Your task to perform on an android device: Open Google Chrome Image 0: 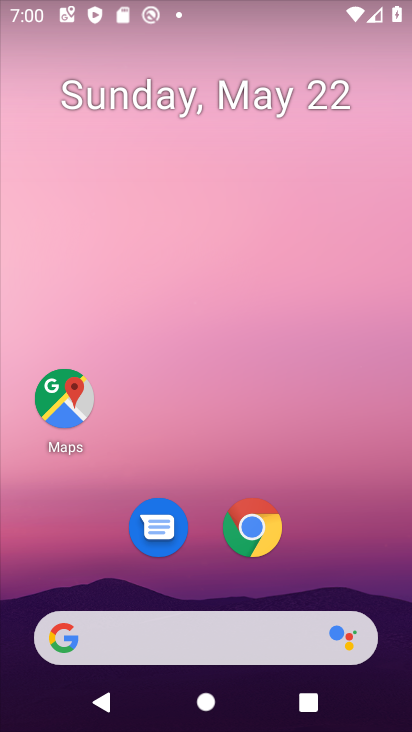
Step 0: drag from (376, 563) to (377, 168)
Your task to perform on an android device: Open Google Chrome Image 1: 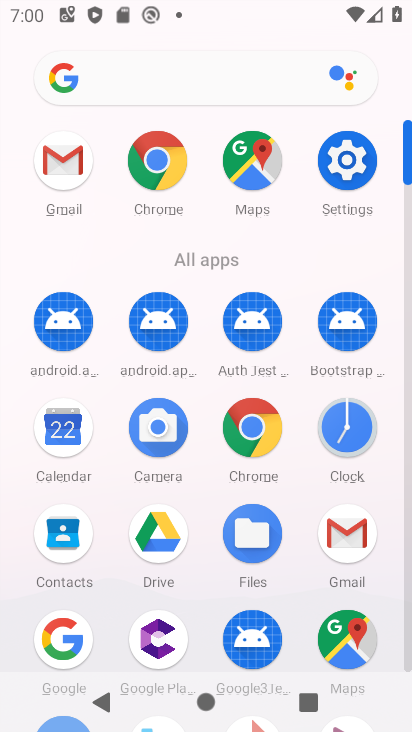
Step 1: click (153, 163)
Your task to perform on an android device: Open Google Chrome Image 2: 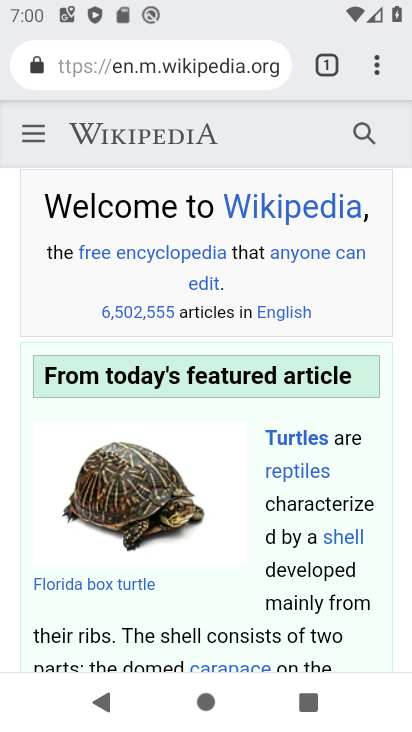
Step 2: task complete